Your task to perform on an android device: toggle airplane mode Image 0: 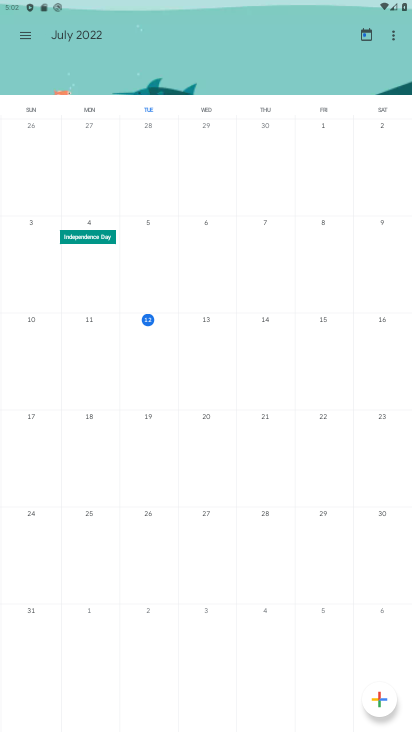
Step 0: press home button
Your task to perform on an android device: toggle airplane mode Image 1: 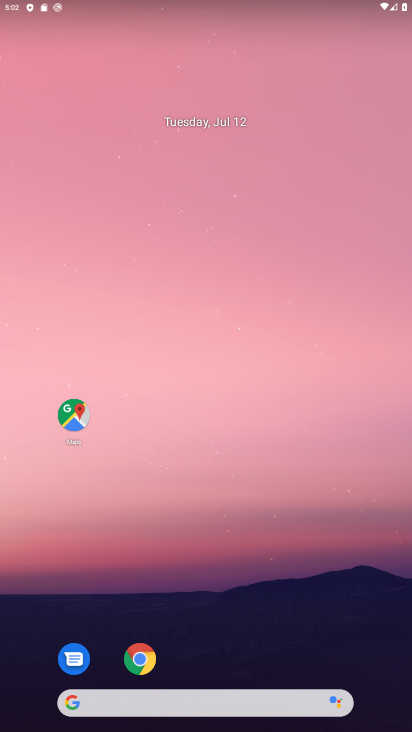
Step 1: drag from (362, 675) to (322, 104)
Your task to perform on an android device: toggle airplane mode Image 2: 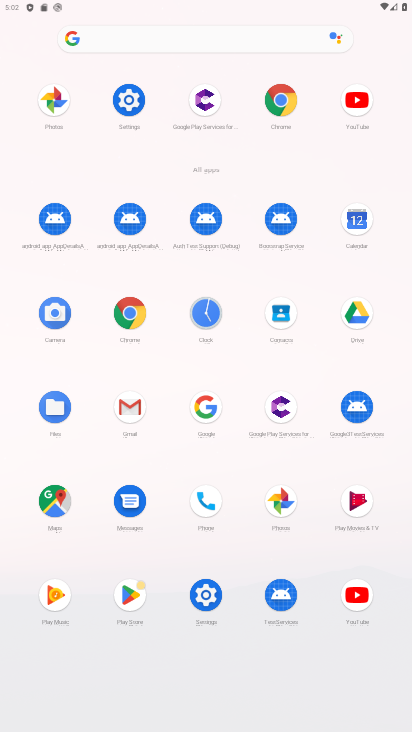
Step 2: click (204, 596)
Your task to perform on an android device: toggle airplane mode Image 3: 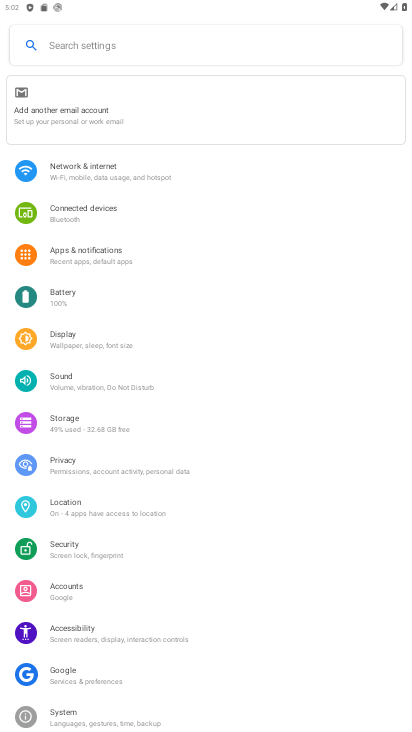
Step 3: click (79, 167)
Your task to perform on an android device: toggle airplane mode Image 4: 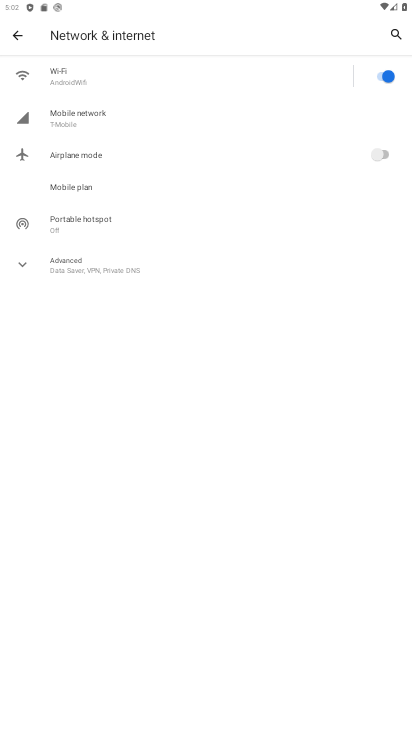
Step 4: click (383, 158)
Your task to perform on an android device: toggle airplane mode Image 5: 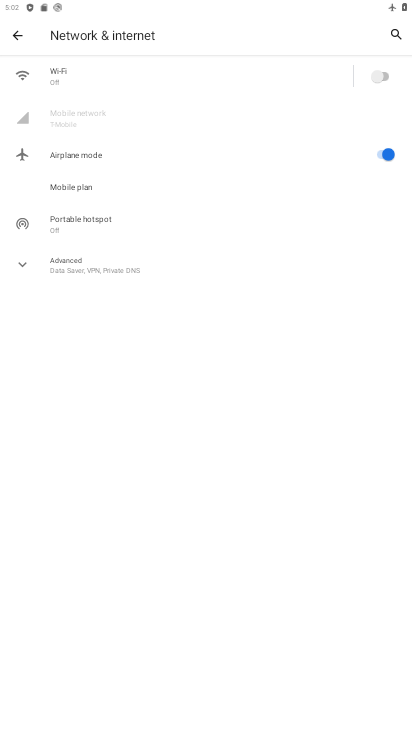
Step 5: task complete